Your task to perform on an android device: Search for vegetarian restaurants on Maps Image 0: 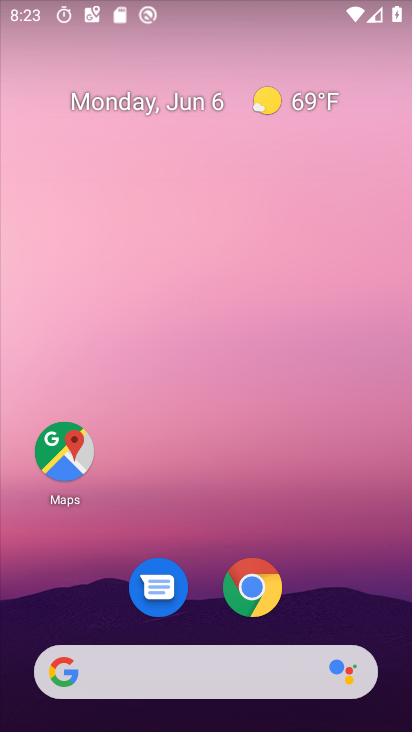
Step 0: drag from (379, 585) to (338, 72)
Your task to perform on an android device: Search for vegetarian restaurants on Maps Image 1: 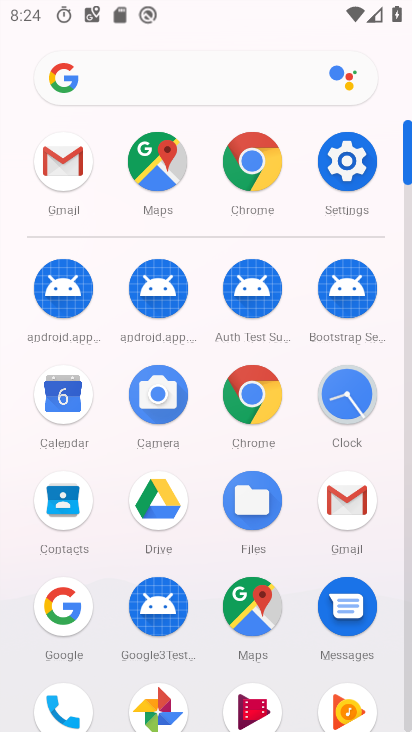
Step 1: drag from (301, 541) to (302, 264)
Your task to perform on an android device: Search for vegetarian restaurants on Maps Image 2: 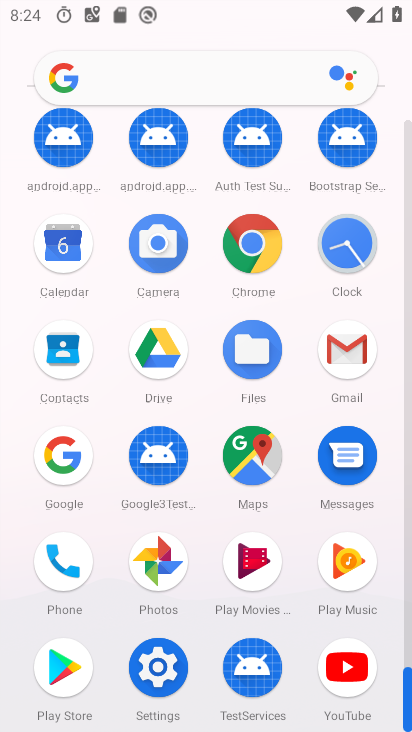
Step 2: drag from (189, 333) to (204, 592)
Your task to perform on an android device: Search for vegetarian restaurants on Maps Image 3: 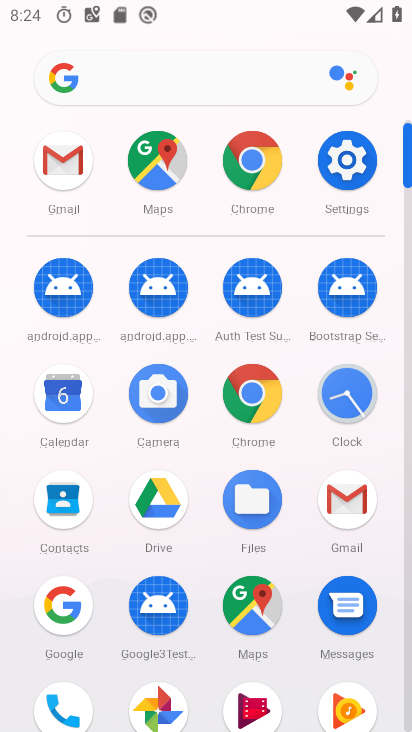
Step 3: click (141, 161)
Your task to perform on an android device: Search for vegetarian restaurants on Maps Image 4: 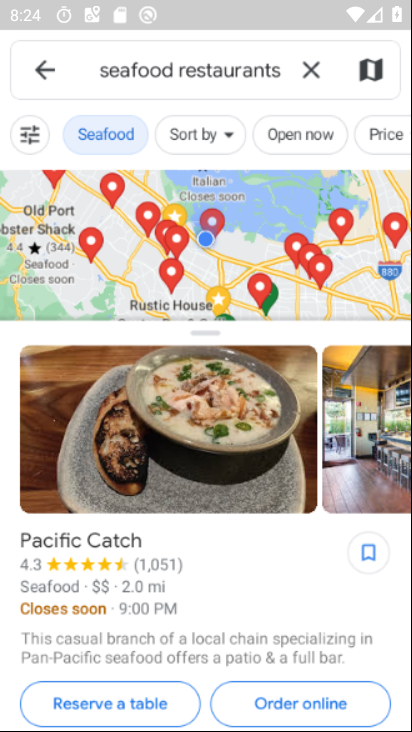
Step 4: click (305, 67)
Your task to perform on an android device: Search for vegetarian restaurants on Maps Image 5: 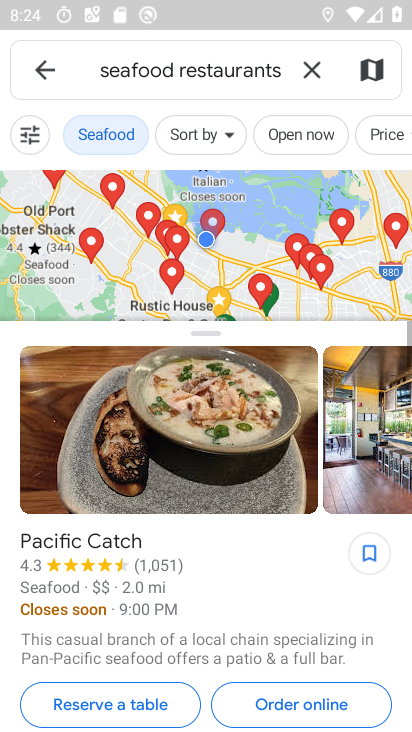
Step 5: click (316, 76)
Your task to perform on an android device: Search for vegetarian restaurants on Maps Image 6: 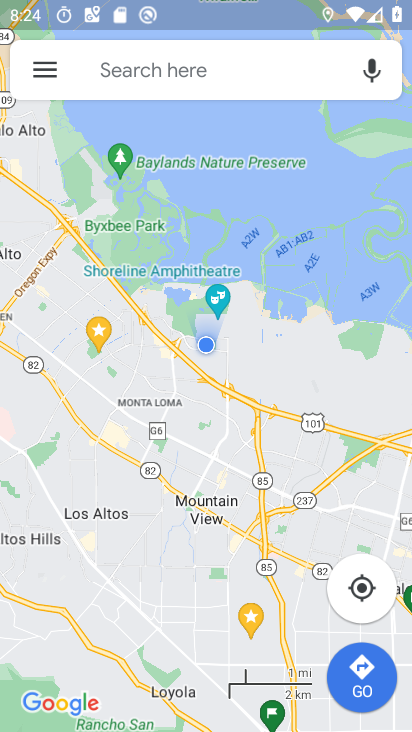
Step 6: click (206, 68)
Your task to perform on an android device: Search for vegetarian restaurants on Maps Image 7: 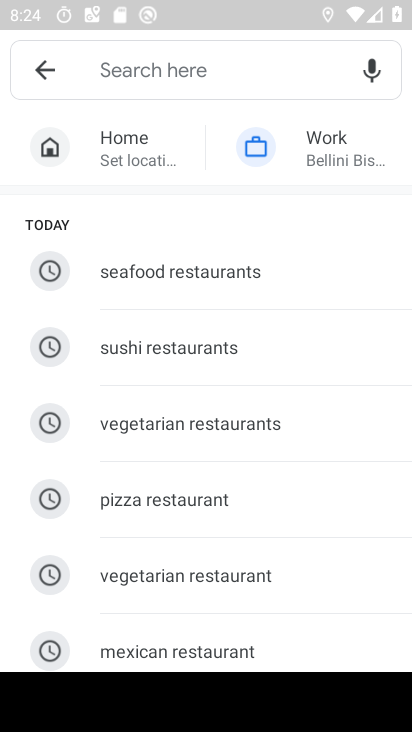
Step 7: click (205, 418)
Your task to perform on an android device: Search for vegetarian restaurants on Maps Image 8: 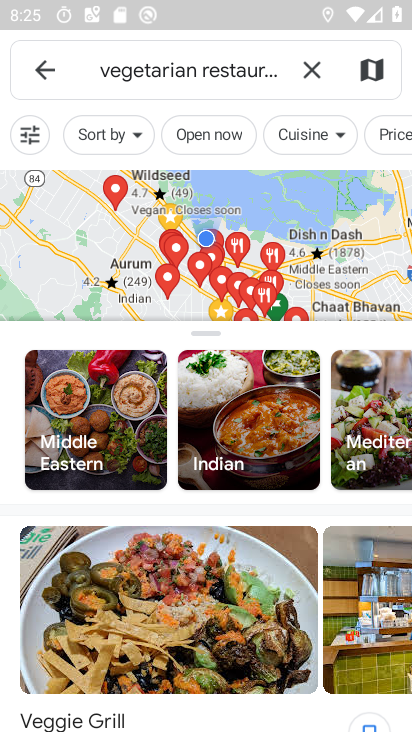
Step 8: task complete